Your task to perform on an android device: add a contact in the contacts app Image 0: 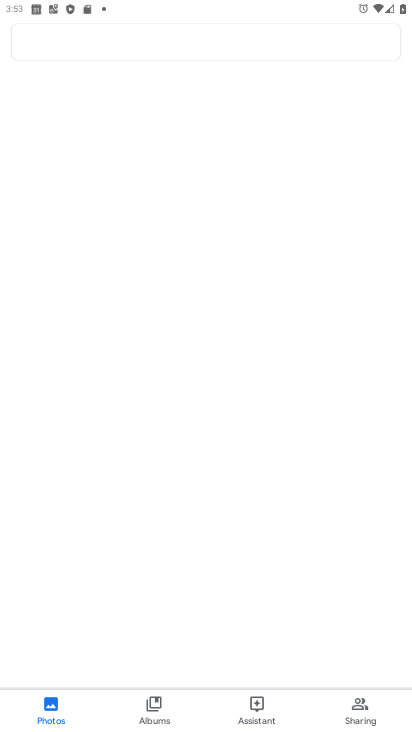
Step 0: drag from (329, 628) to (219, 29)
Your task to perform on an android device: add a contact in the contacts app Image 1: 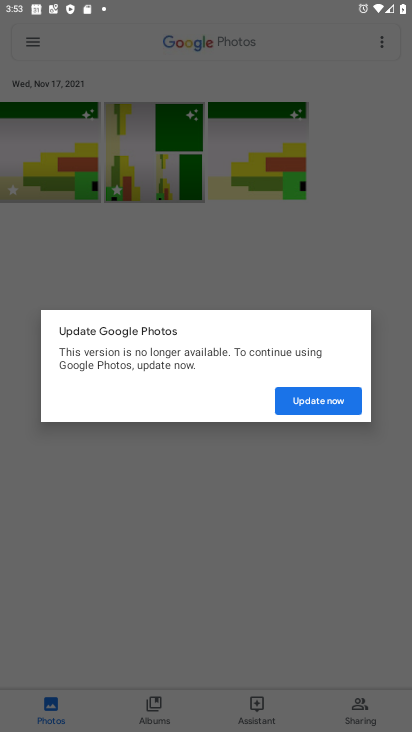
Step 1: click (313, 400)
Your task to perform on an android device: add a contact in the contacts app Image 2: 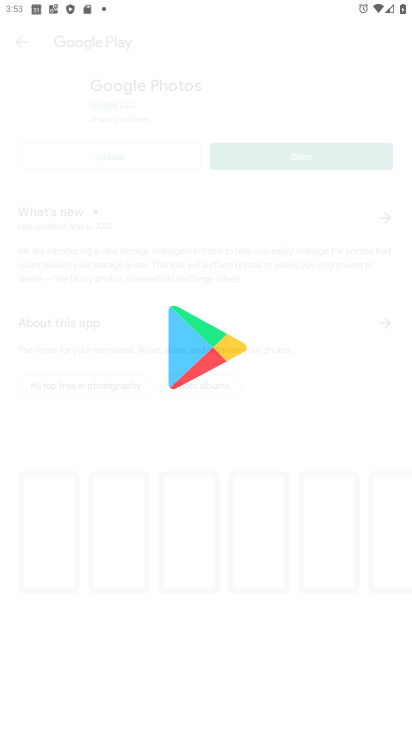
Step 2: press home button
Your task to perform on an android device: add a contact in the contacts app Image 3: 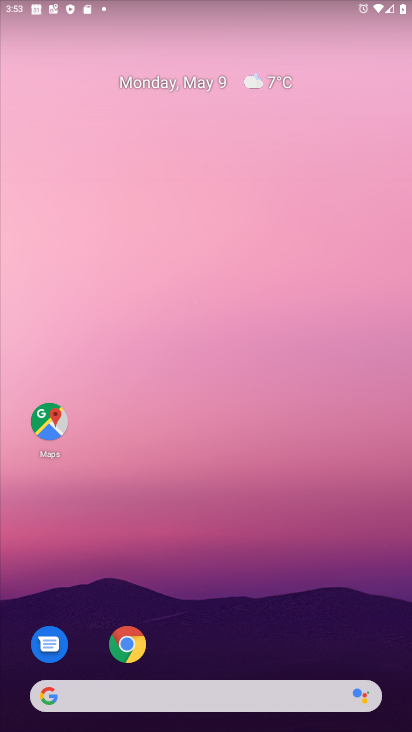
Step 3: drag from (267, 639) to (250, 145)
Your task to perform on an android device: add a contact in the contacts app Image 4: 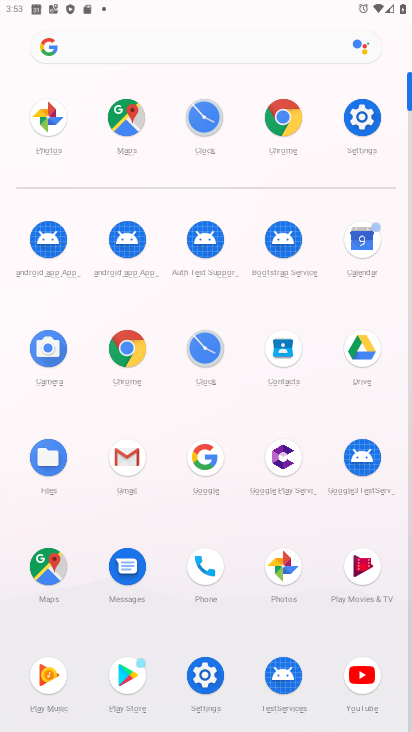
Step 4: click (279, 360)
Your task to perform on an android device: add a contact in the contacts app Image 5: 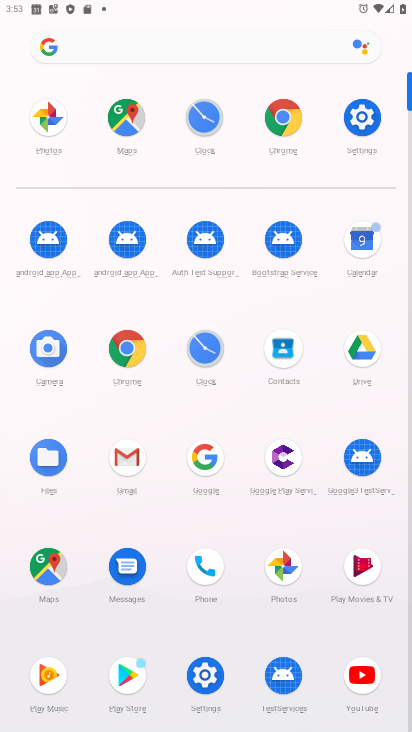
Step 5: click (282, 356)
Your task to perform on an android device: add a contact in the contacts app Image 6: 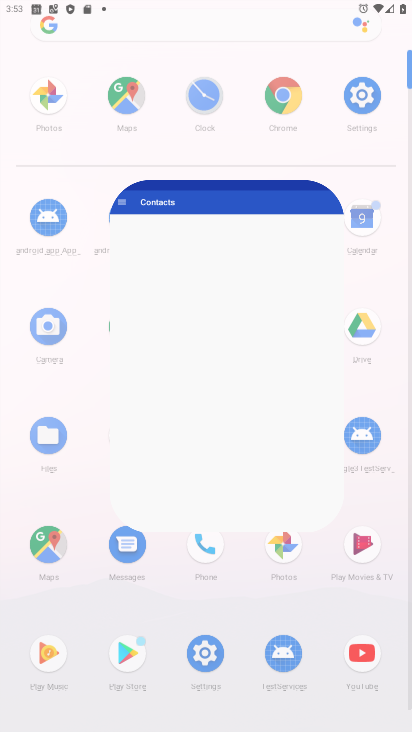
Step 6: click (282, 356)
Your task to perform on an android device: add a contact in the contacts app Image 7: 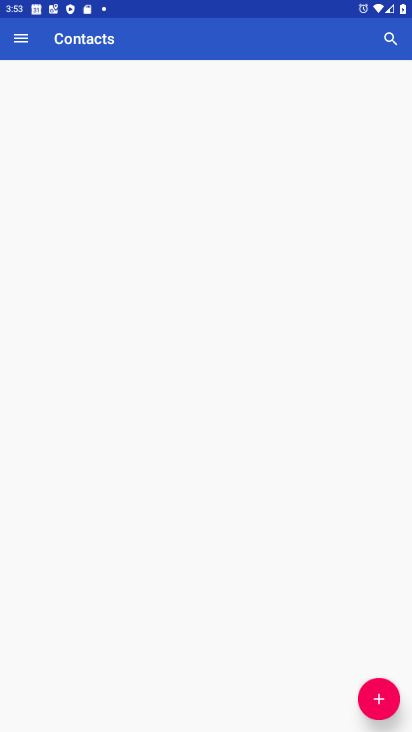
Step 7: click (283, 355)
Your task to perform on an android device: add a contact in the contacts app Image 8: 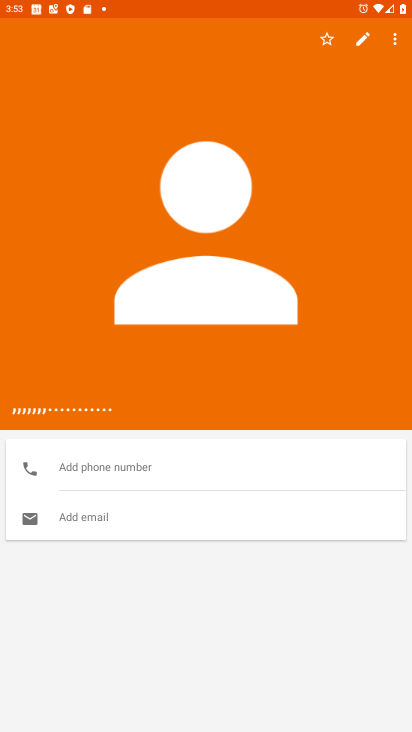
Step 8: click (94, 463)
Your task to perform on an android device: add a contact in the contacts app Image 9: 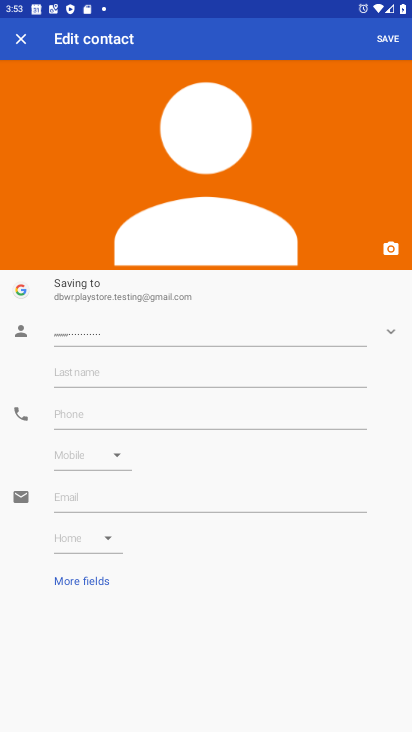
Step 9: click (70, 334)
Your task to perform on an android device: add a contact in the contacts app Image 10: 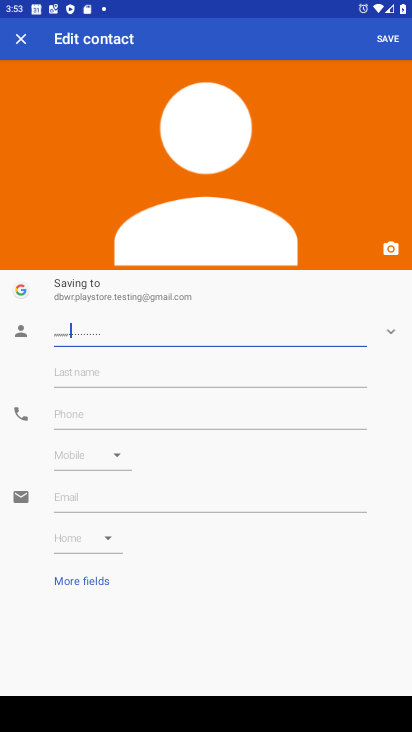
Step 10: type "mohan"
Your task to perform on an android device: add a contact in the contacts app Image 11: 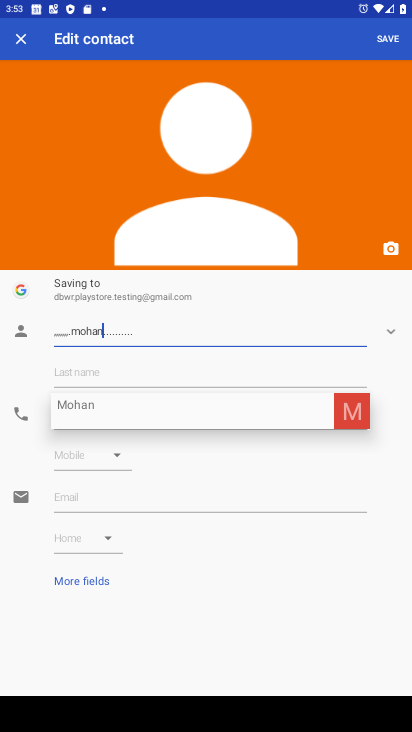
Step 11: click (82, 430)
Your task to perform on an android device: add a contact in the contacts app Image 12: 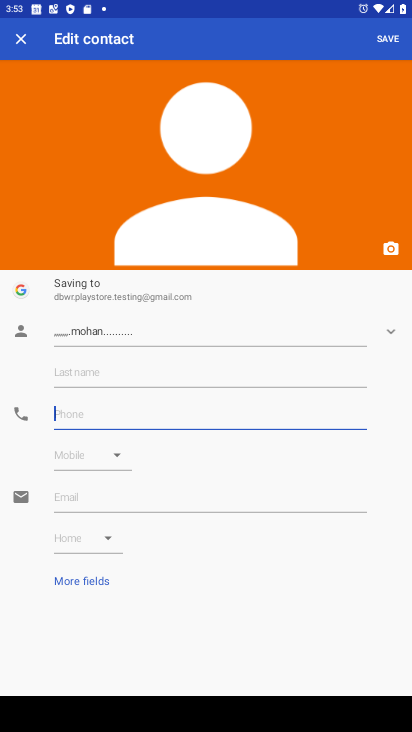
Step 12: click (36, 403)
Your task to perform on an android device: add a contact in the contacts app Image 13: 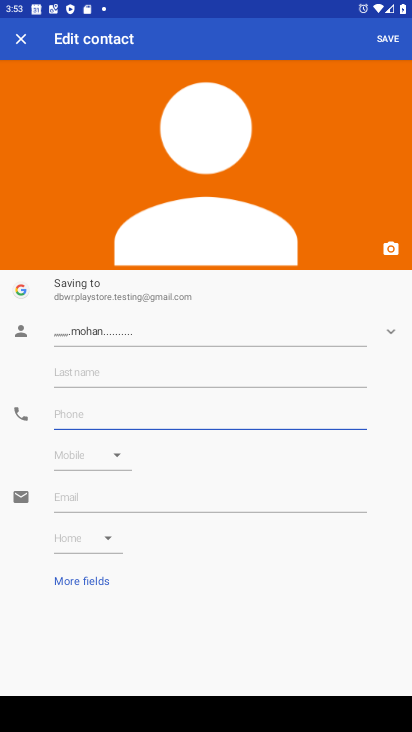
Step 13: click (54, 411)
Your task to perform on an android device: add a contact in the contacts app Image 14: 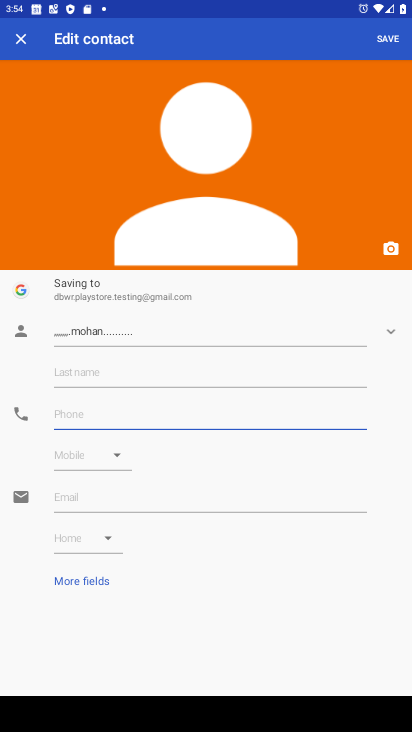
Step 14: type "97898798787"
Your task to perform on an android device: add a contact in the contacts app Image 15: 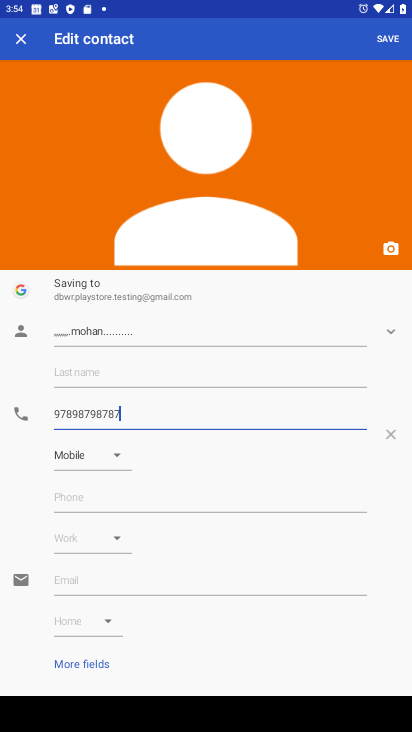
Step 15: click (387, 34)
Your task to perform on an android device: add a contact in the contacts app Image 16: 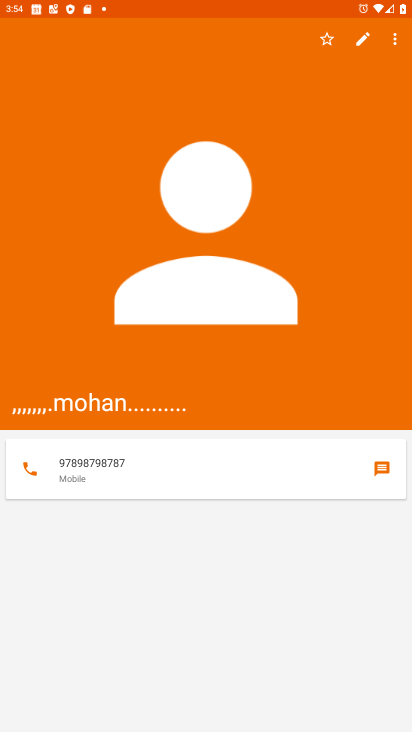
Step 16: task complete